Your task to perform on an android device: Go to calendar. Show me events next week Image 0: 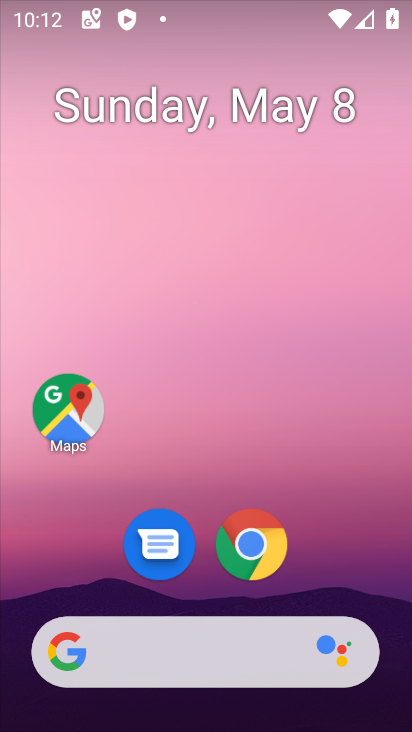
Step 0: drag from (364, 572) to (213, 37)
Your task to perform on an android device: Go to calendar. Show me events next week Image 1: 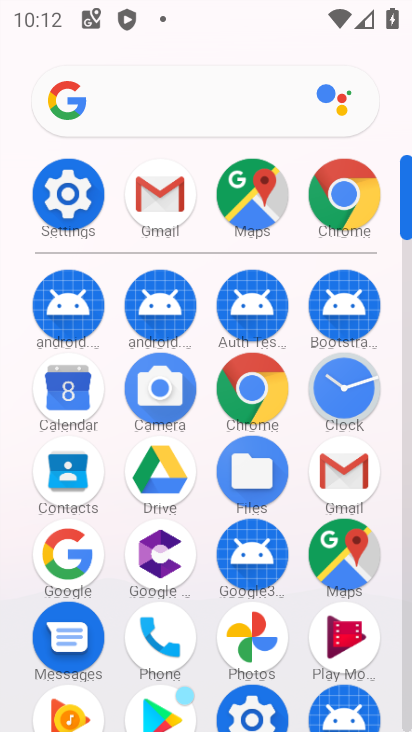
Step 1: click (80, 423)
Your task to perform on an android device: Go to calendar. Show me events next week Image 2: 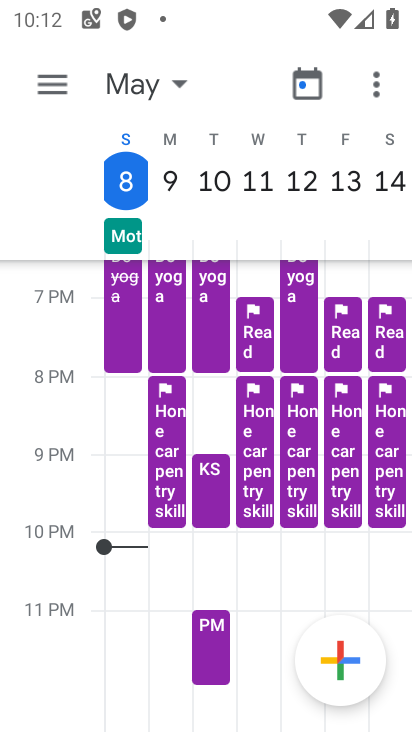
Step 2: task complete